Your task to perform on an android device: Open Youtube and go to the subscriptions tab Image 0: 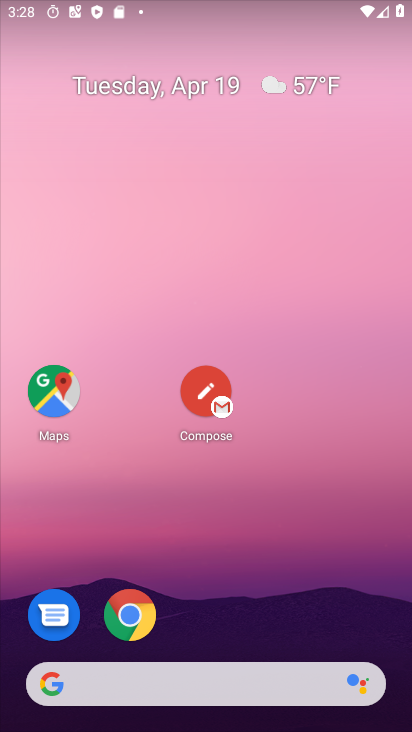
Step 0: drag from (297, 651) to (286, 178)
Your task to perform on an android device: Open Youtube and go to the subscriptions tab Image 1: 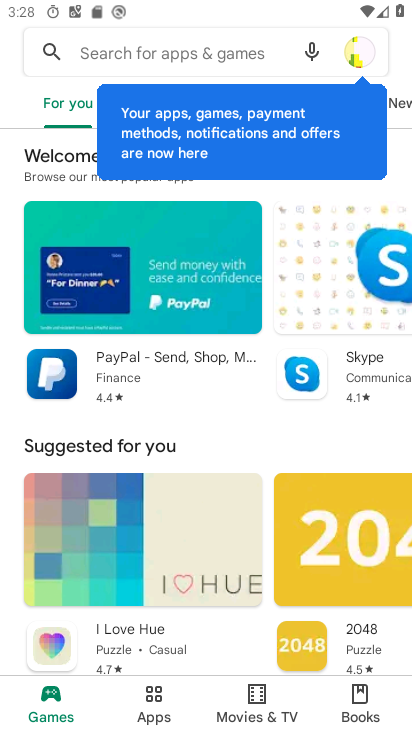
Step 1: press home button
Your task to perform on an android device: Open Youtube and go to the subscriptions tab Image 2: 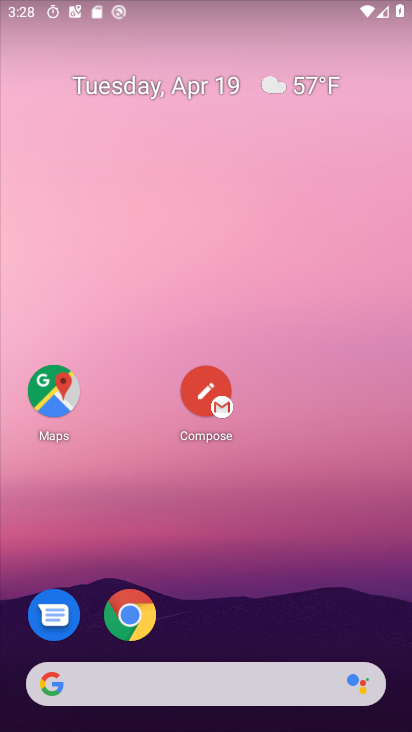
Step 2: drag from (271, 660) to (275, 151)
Your task to perform on an android device: Open Youtube and go to the subscriptions tab Image 3: 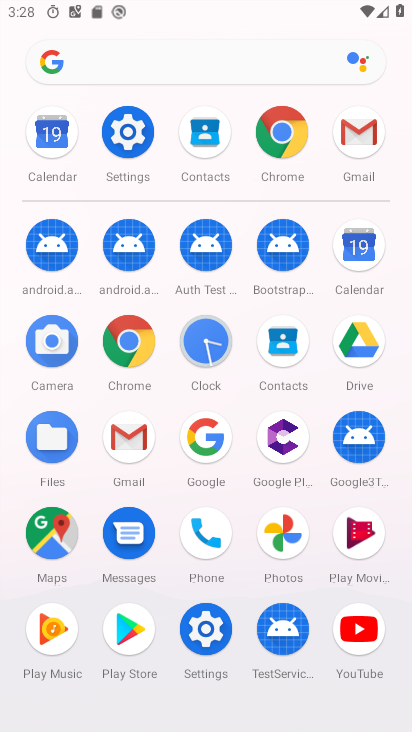
Step 3: click (357, 634)
Your task to perform on an android device: Open Youtube and go to the subscriptions tab Image 4: 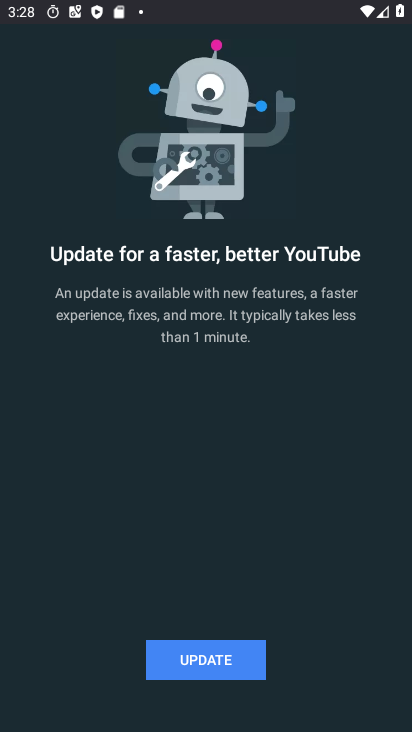
Step 4: click (241, 667)
Your task to perform on an android device: Open Youtube and go to the subscriptions tab Image 5: 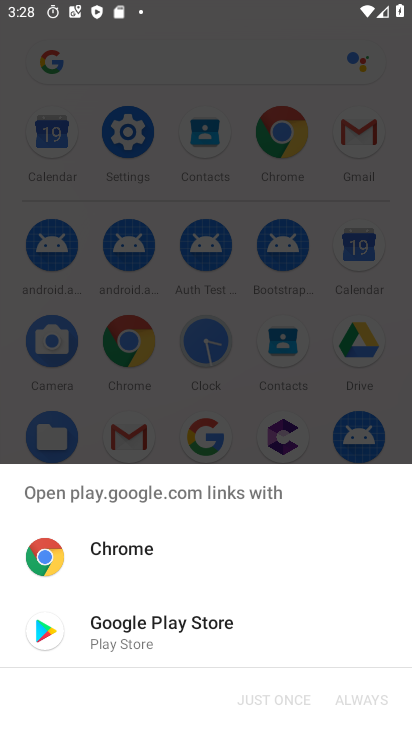
Step 5: click (193, 642)
Your task to perform on an android device: Open Youtube and go to the subscriptions tab Image 6: 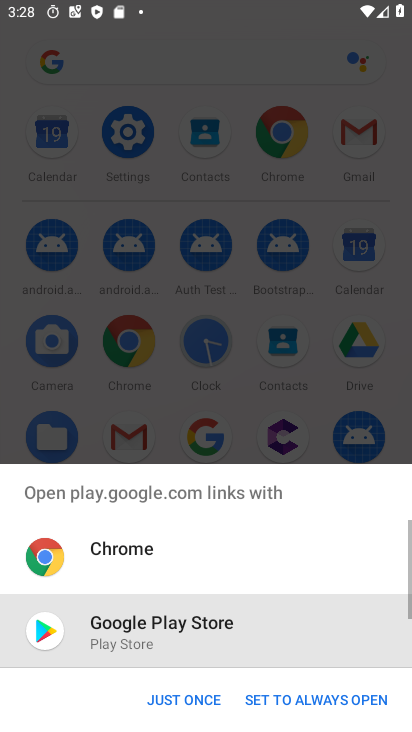
Step 6: click (184, 700)
Your task to perform on an android device: Open Youtube and go to the subscriptions tab Image 7: 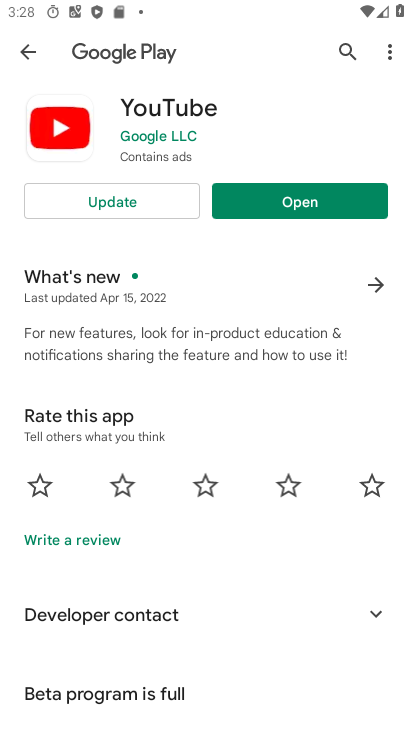
Step 7: click (134, 211)
Your task to perform on an android device: Open Youtube and go to the subscriptions tab Image 8: 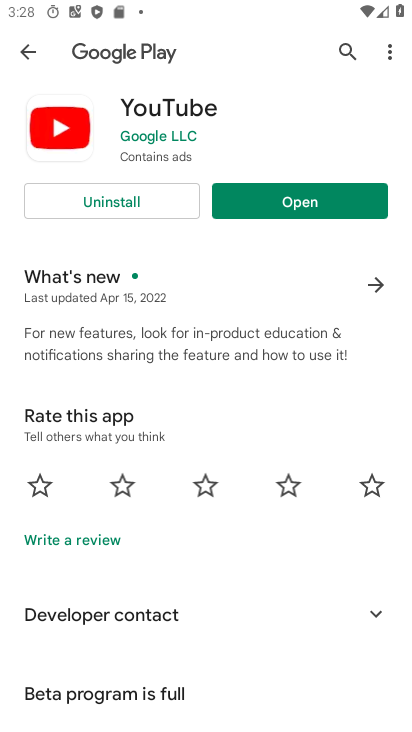
Step 8: click (328, 200)
Your task to perform on an android device: Open Youtube and go to the subscriptions tab Image 9: 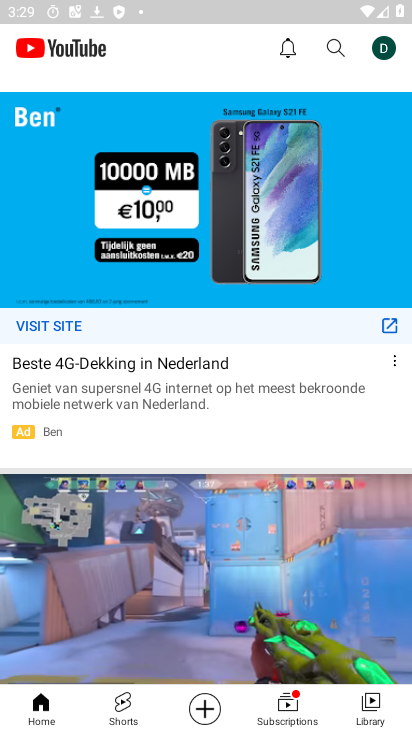
Step 9: click (288, 705)
Your task to perform on an android device: Open Youtube and go to the subscriptions tab Image 10: 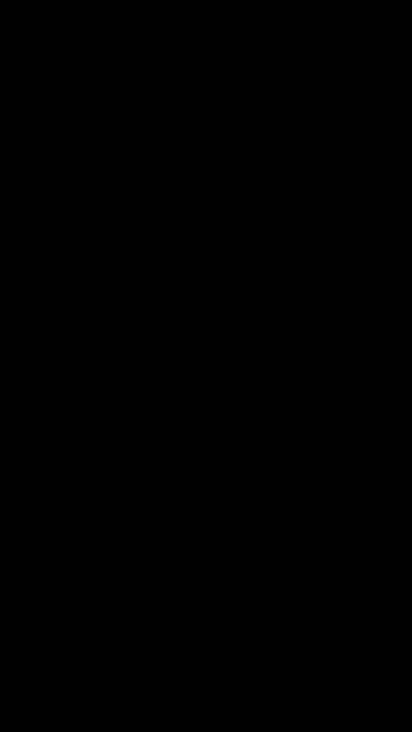
Step 10: task complete